Your task to perform on an android device: Open Yahoo.com Image 0: 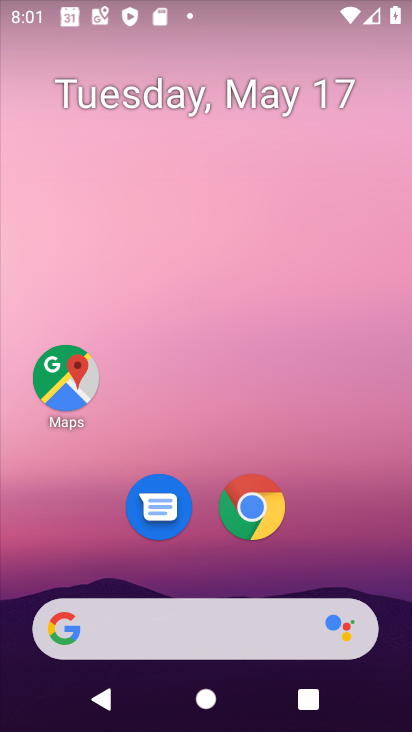
Step 0: drag from (281, 688) to (189, 3)
Your task to perform on an android device: Open Yahoo.com Image 1: 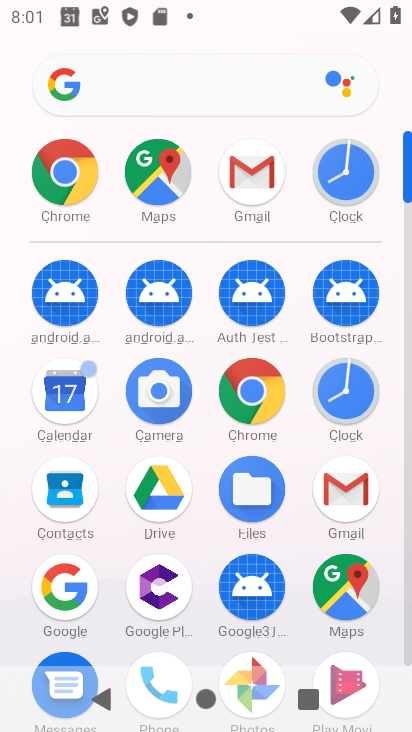
Step 1: click (246, 393)
Your task to perform on an android device: Open Yahoo.com Image 2: 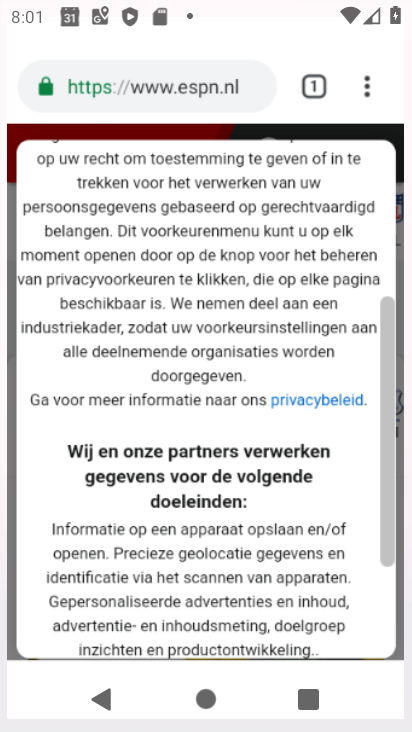
Step 2: click (246, 393)
Your task to perform on an android device: Open Yahoo.com Image 3: 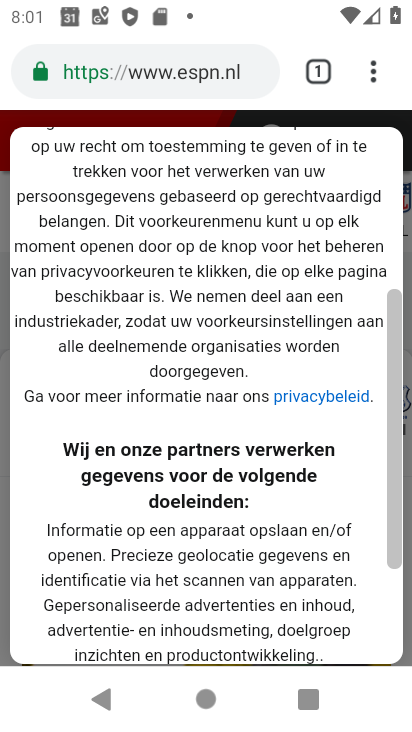
Step 3: click (366, 75)
Your task to perform on an android device: Open Yahoo.com Image 4: 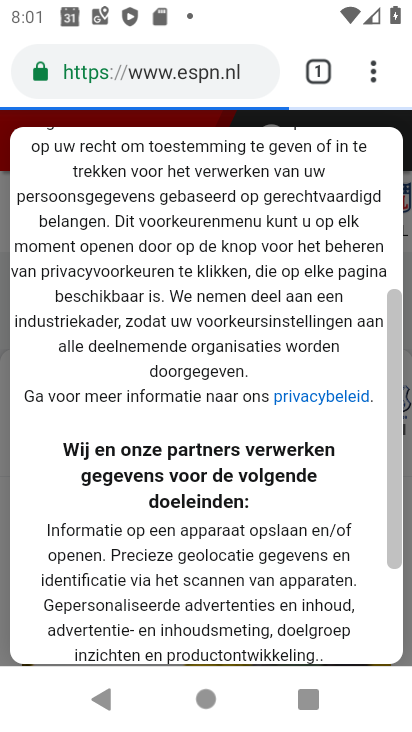
Step 4: click (121, 141)
Your task to perform on an android device: Open Yahoo.com Image 5: 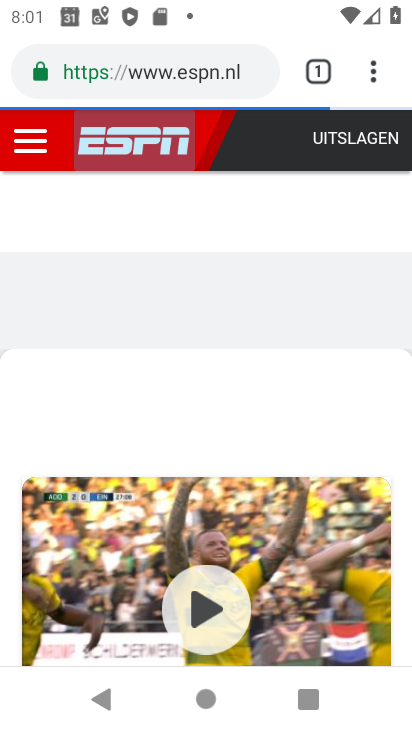
Step 5: drag from (366, 74) to (112, 145)
Your task to perform on an android device: Open Yahoo.com Image 6: 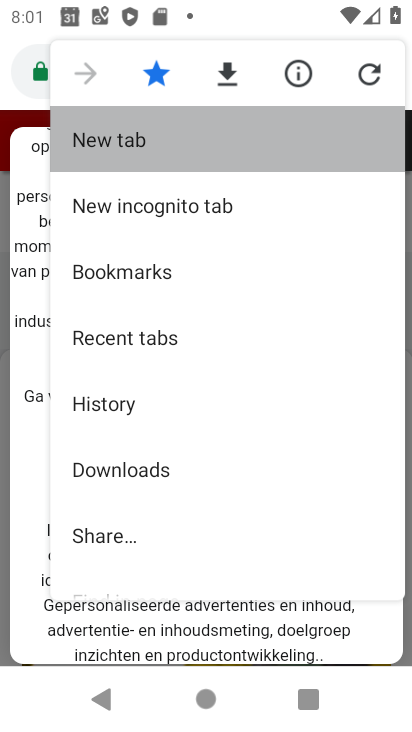
Step 6: click (108, 141)
Your task to perform on an android device: Open Yahoo.com Image 7: 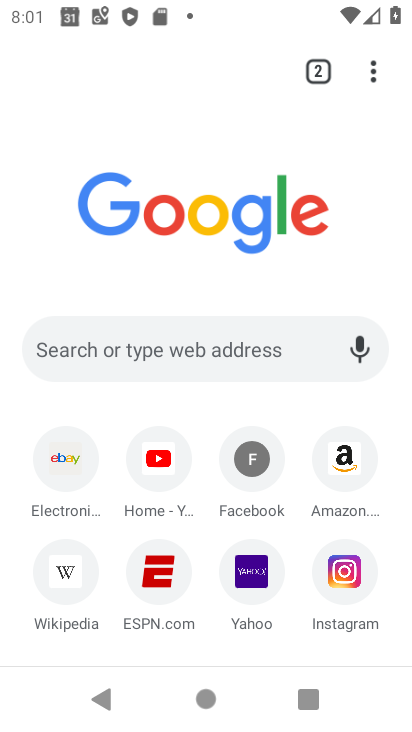
Step 7: click (257, 568)
Your task to perform on an android device: Open Yahoo.com Image 8: 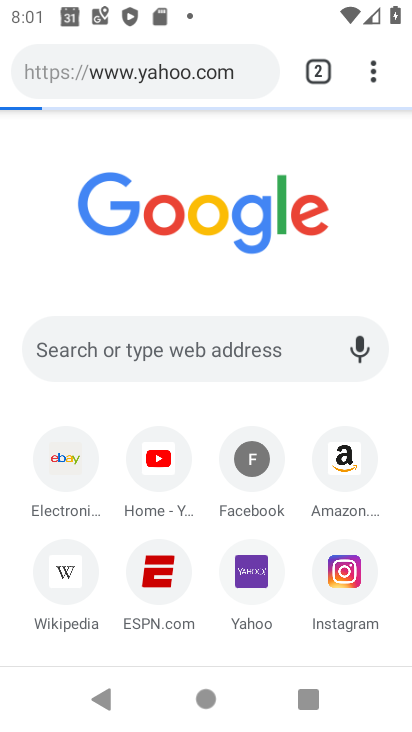
Step 8: click (257, 568)
Your task to perform on an android device: Open Yahoo.com Image 9: 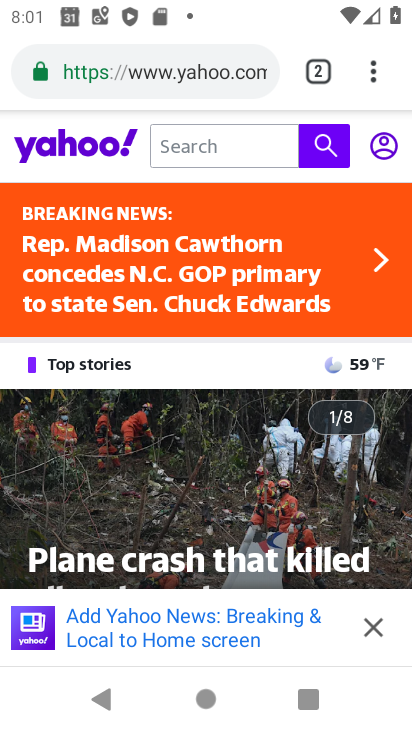
Step 9: task complete